Your task to perform on an android device: Go to Android settings Image 0: 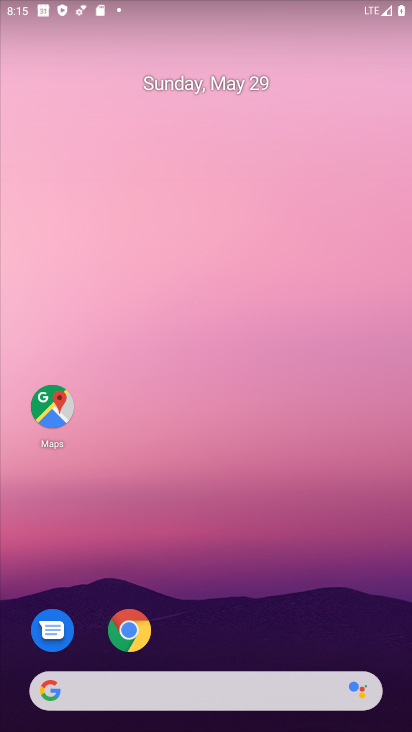
Step 0: drag from (224, 649) to (168, 17)
Your task to perform on an android device: Go to Android settings Image 1: 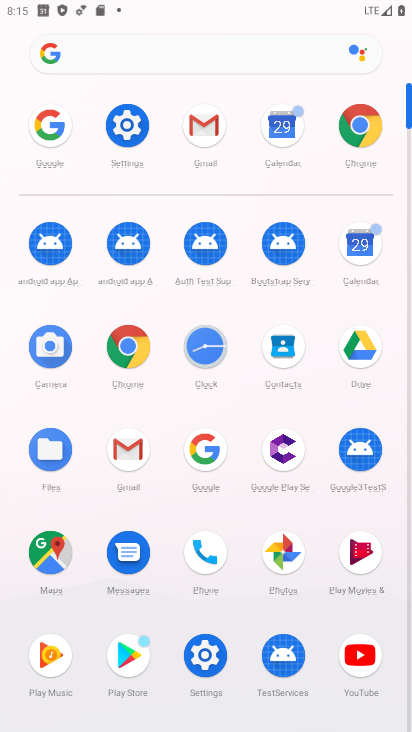
Step 1: click (196, 663)
Your task to perform on an android device: Go to Android settings Image 2: 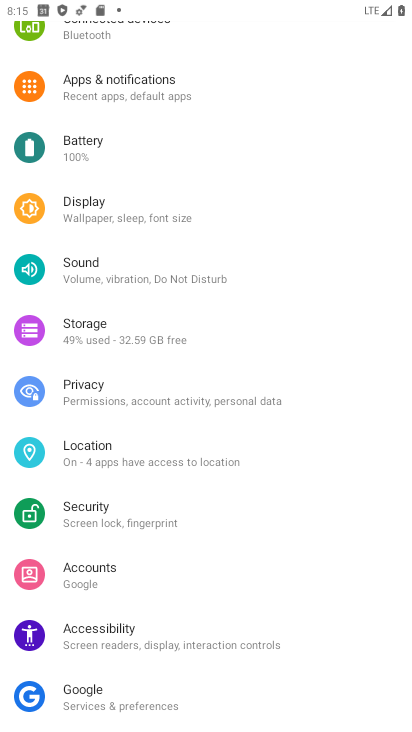
Step 2: task complete